Your task to perform on an android device: Empty the shopping cart on bestbuy. Image 0: 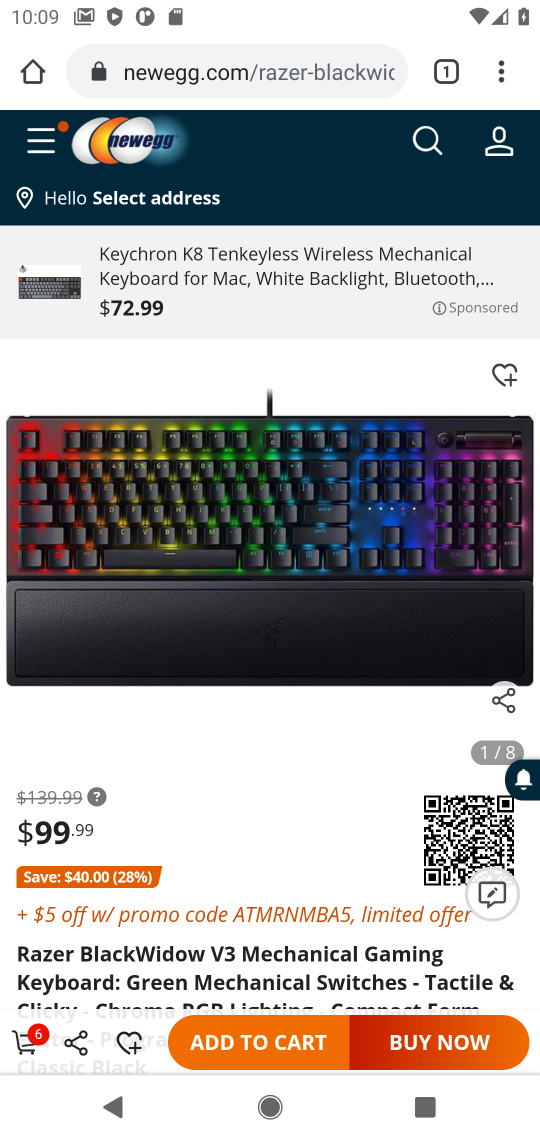
Step 0: click (271, 82)
Your task to perform on an android device: Empty the shopping cart on bestbuy. Image 1: 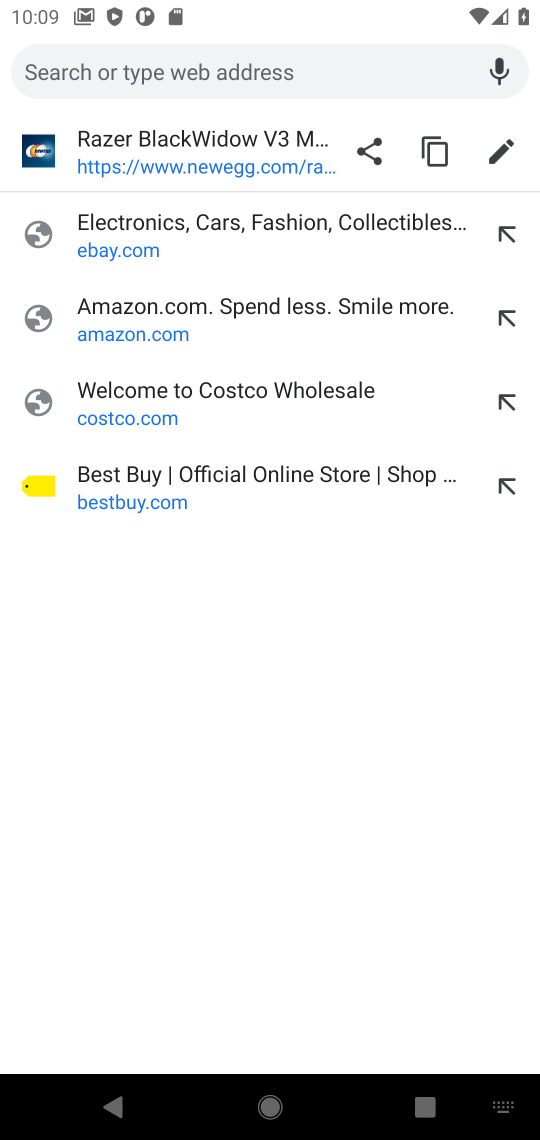
Step 1: type "bestbuy\"
Your task to perform on an android device: Empty the shopping cart on bestbuy. Image 2: 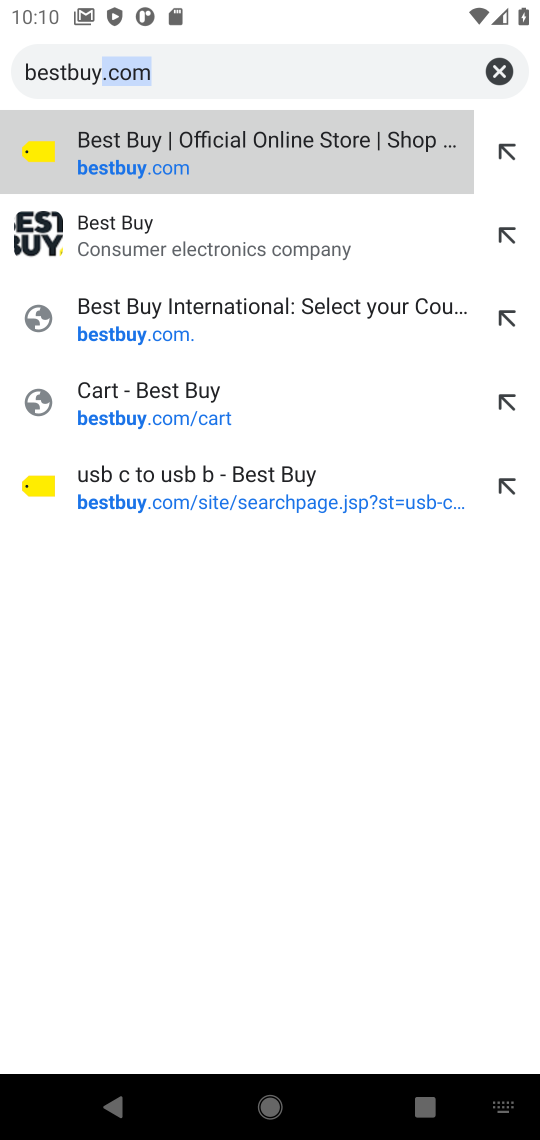
Step 2: click (190, 147)
Your task to perform on an android device: Empty the shopping cart on bestbuy. Image 3: 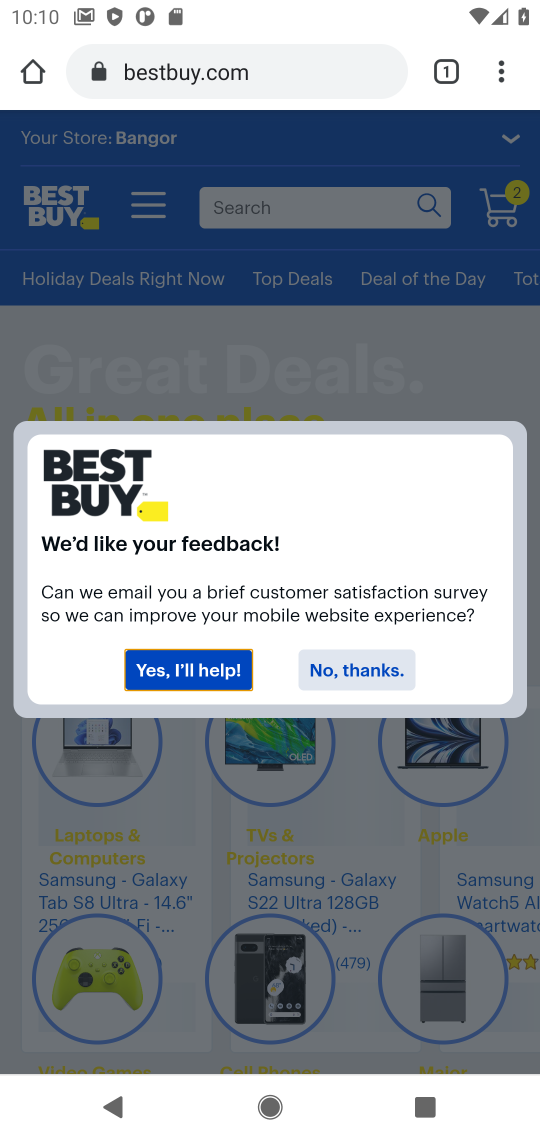
Step 3: click (369, 654)
Your task to perform on an android device: Empty the shopping cart on bestbuy. Image 4: 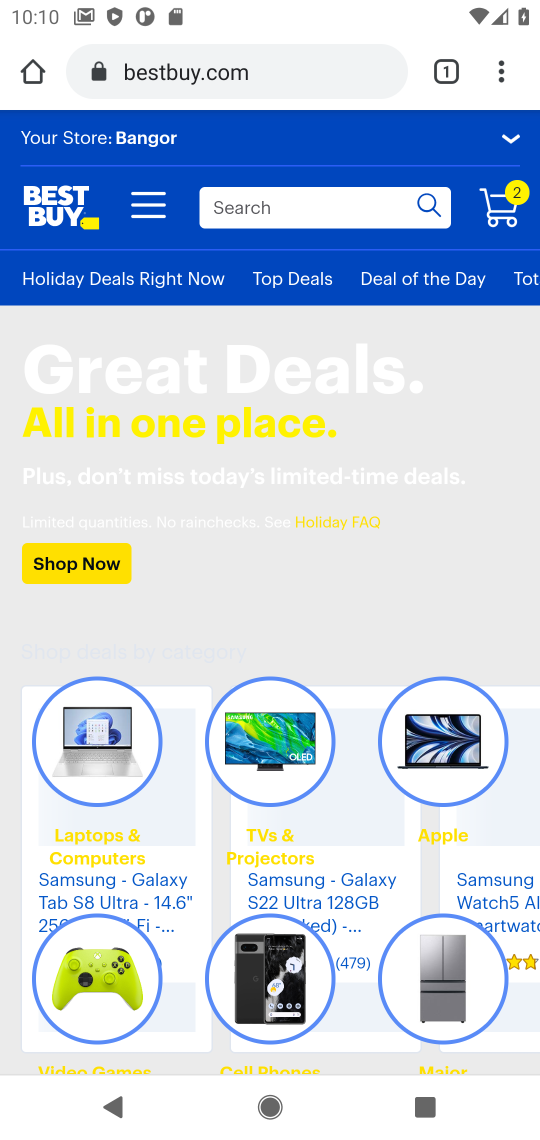
Step 4: click (510, 220)
Your task to perform on an android device: Empty the shopping cart on bestbuy. Image 5: 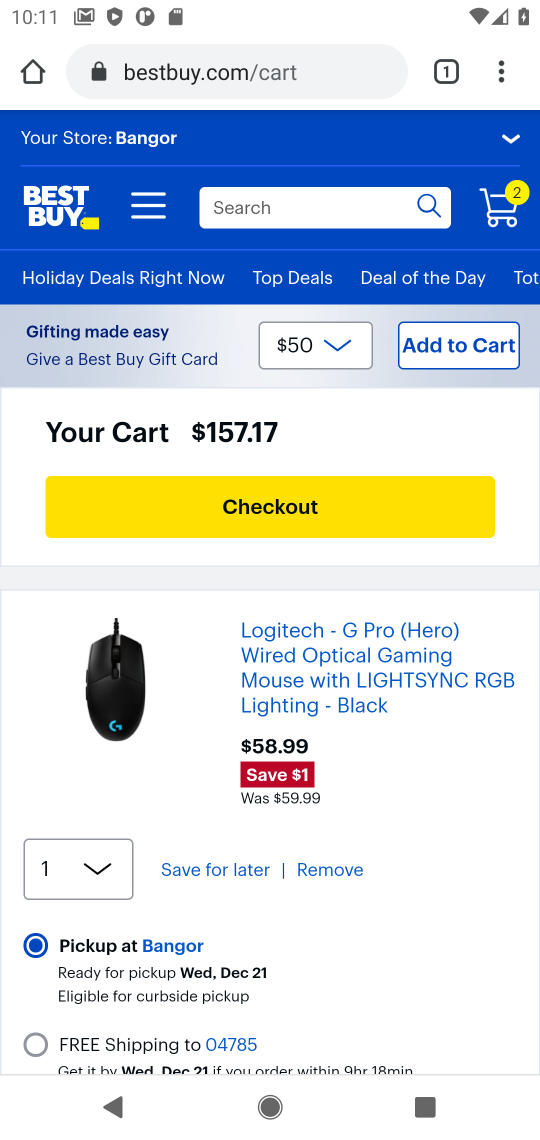
Step 5: click (330, 870)
Your task to perform on an android device: Empty the shopping cart on bestbuy. Image 6: 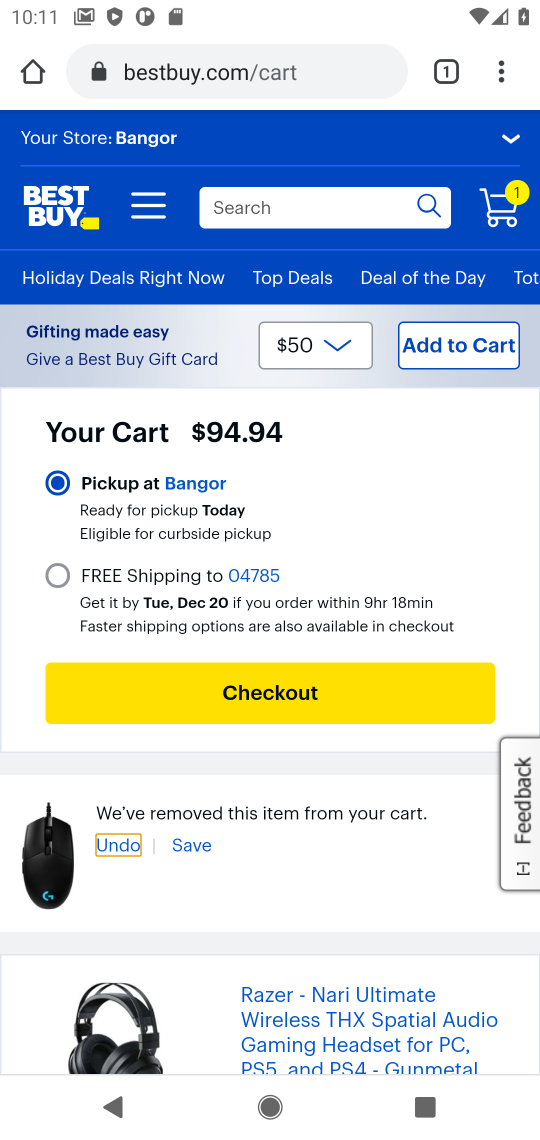
Step 6: drag from (407, 917) to (392, 560)
Your task to perform on an android device: Empty the shopping cart on bestbuy. Image 7: 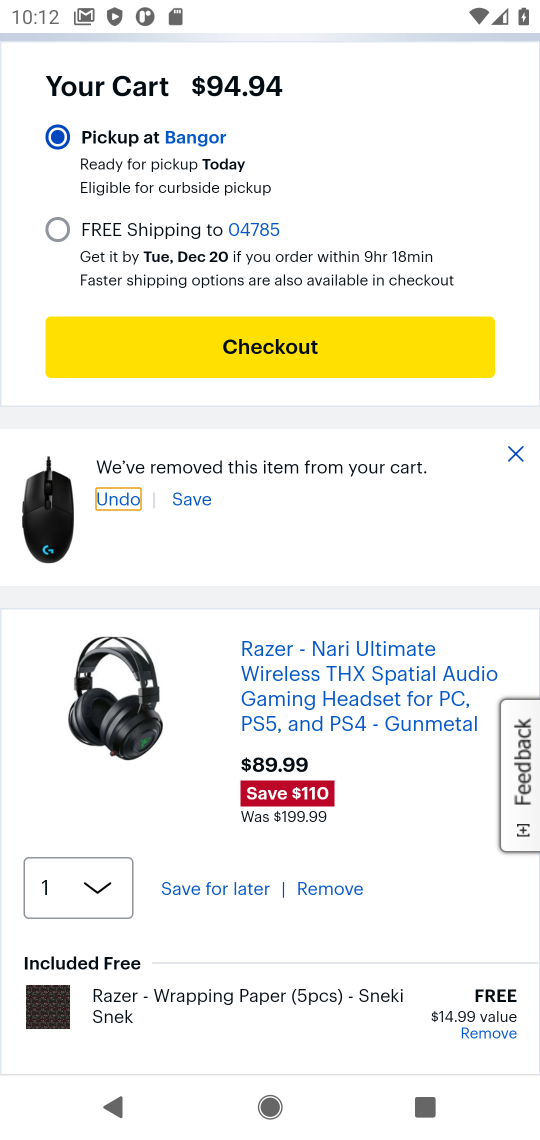
Step 7: click (330, 889)
Your task to perform on an android device: Empty the shopping cart on bestbuy. Image 8: 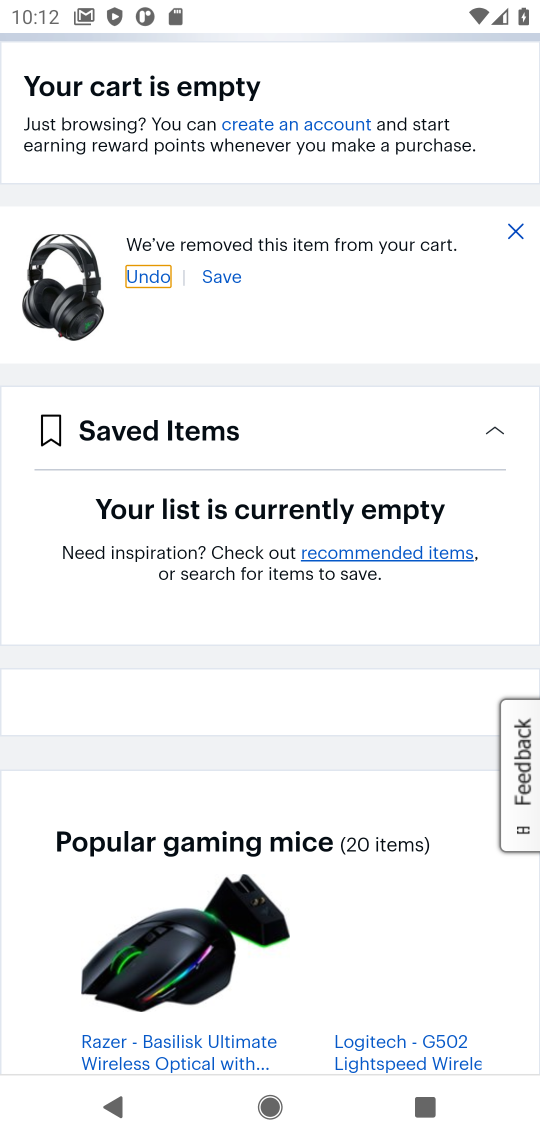
Step 8: task complete